Your task to perform on an android device: Play the last video I watched on Youtube Image 0: 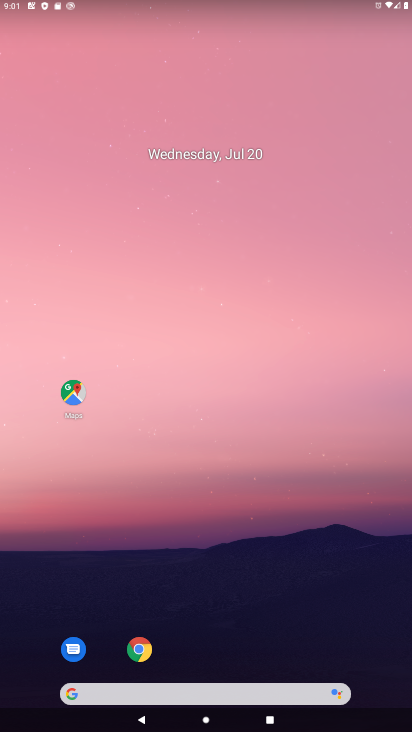
Step 0: drag from (185, 675) to (227, 349)
Your task to perform on an android device: Play the last video I watched on Youtube Image 1: 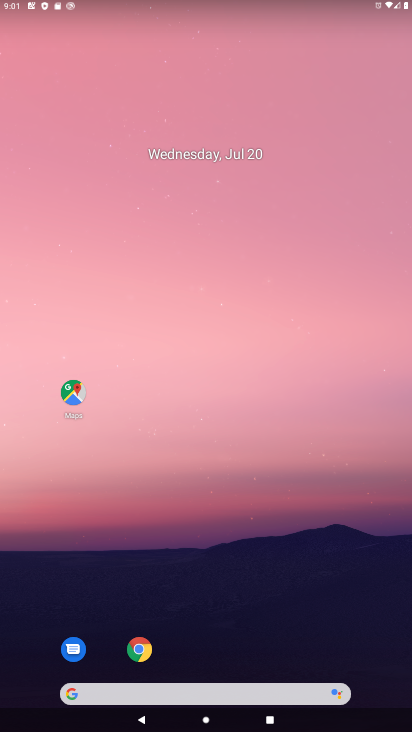
Step 1: drag from (178, 678) to (191, 246)
Your task to perform on an android device: Play the last video I watched on Youtube Image 2: 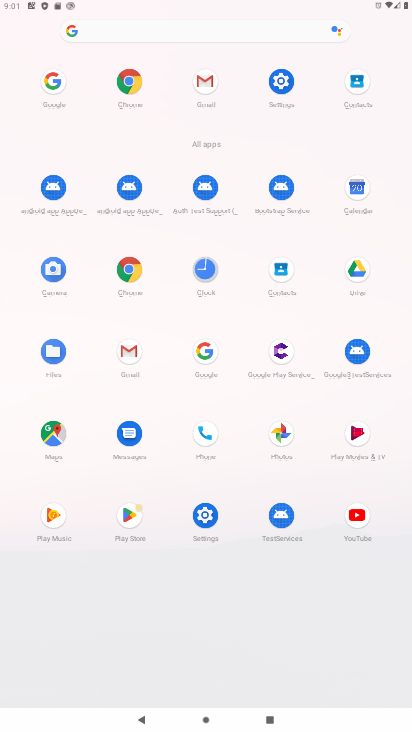
Step 2: click (359, 522)
Your task to perform on an android device: Play the last video I watched on Youtube Image 3: 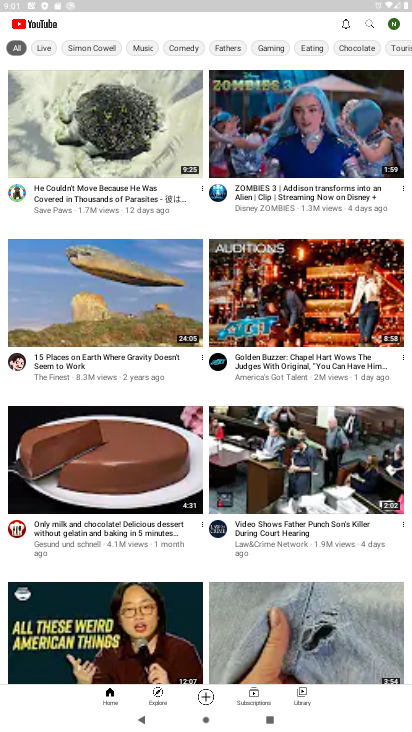
Step 3: click (235, 697)
Your task to perform on an android device: Play the last video I watched on Youtube Image 4: 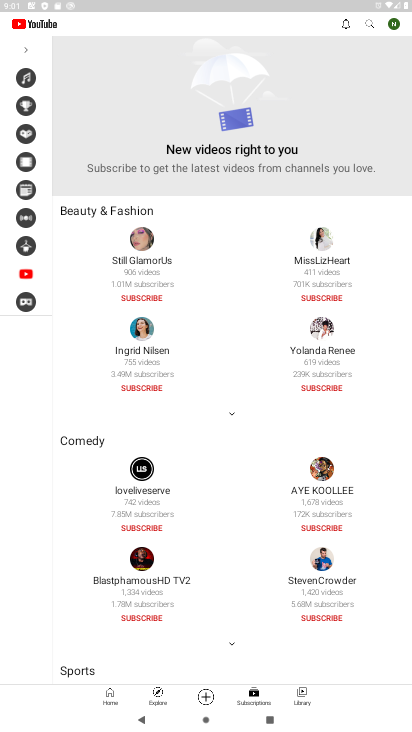
Step 4: click (301, 695)
Your task to perform on an android device: Play the last video I watched on Youtube Image 5: 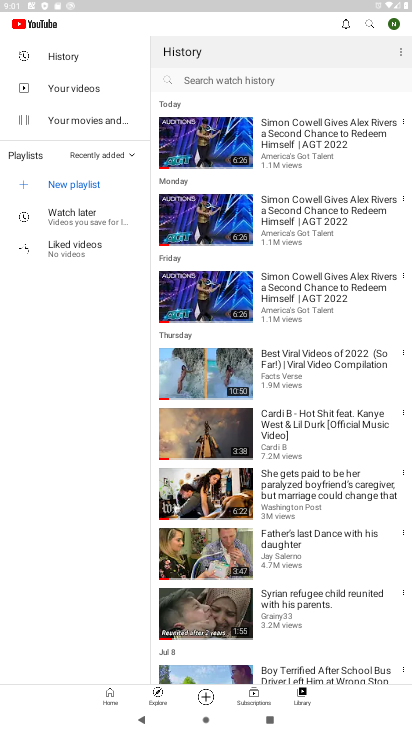
Step 5: click (307, 141)
Your task to perform on an android device: Play the last video I watched on Youtube Image 6: 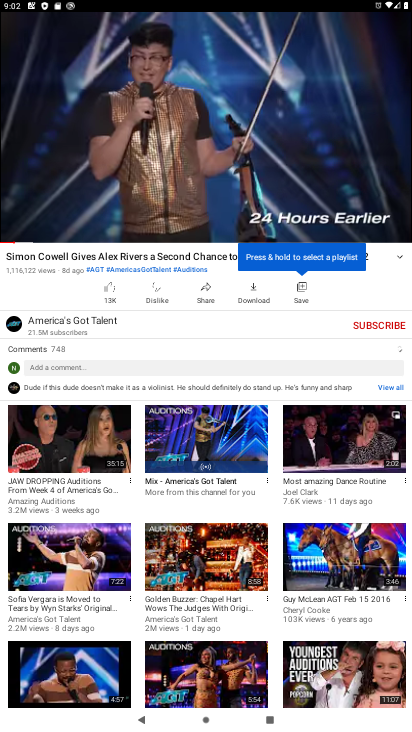
Step 6: task complete